Your task to perform on an android device: add a contact Image 0: 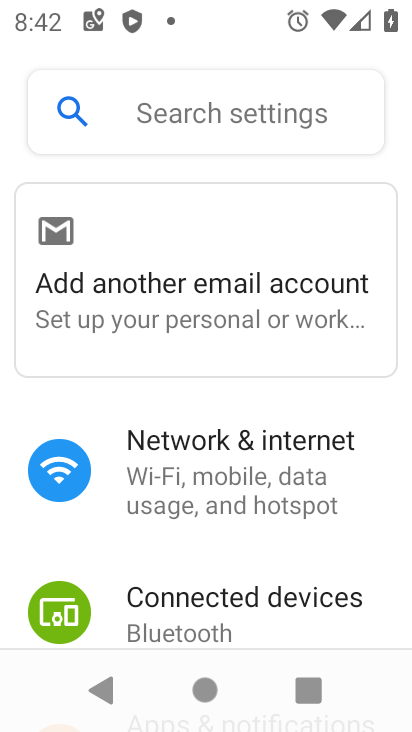
Step 0: press home button
Your task to perform on an android device: add a contact Image 1: 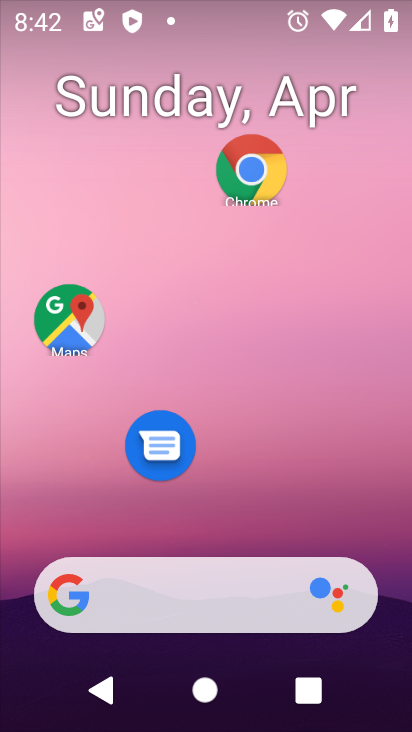
Step 1: drag from (242, 505) to (185, 60)
Your task to perform on an android device: add a contact Image 2: 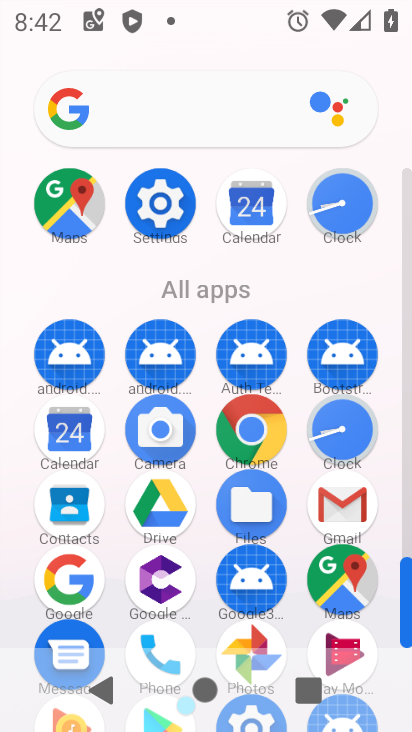
Step 2: click (74, 518)
Your task to perform on an android device: add a contact Image 3: 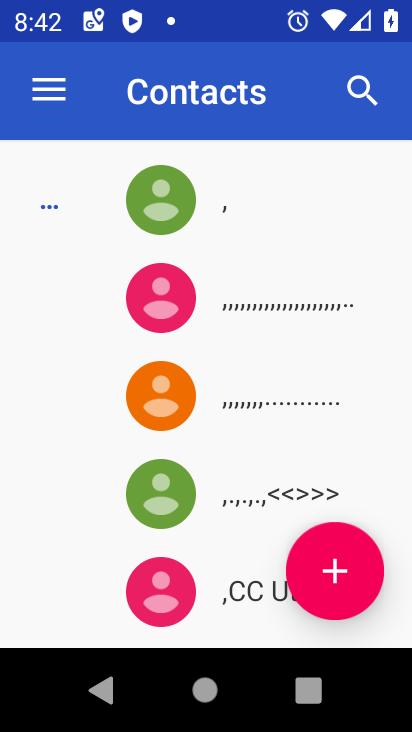
Step 3: click (349, 577)
Your task to perform on an android device: add a contact Image 4: 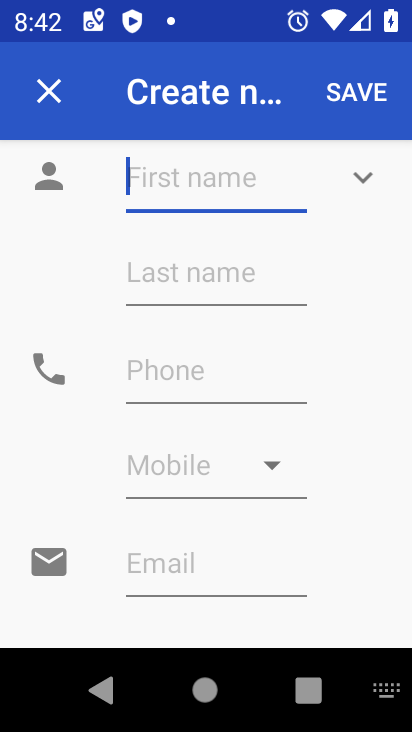
Step 4: type "gdg"
Your task to perform on an android device: add a contact Image 5: 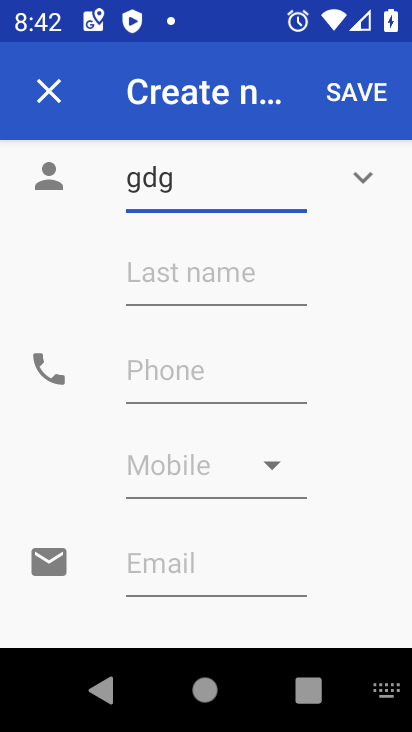
Step 5: click (362, 84)
Your task to perform on an android device: add a contact Image 6: 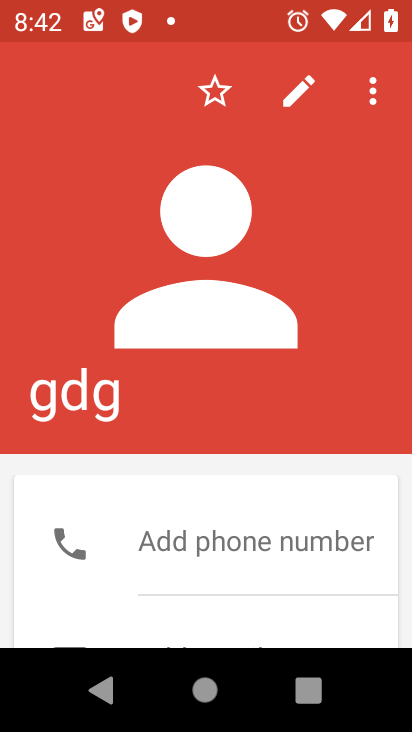
Step 6: task complete